Your task to perform on an android device: move an email to a new category in the gmail app Image 0: 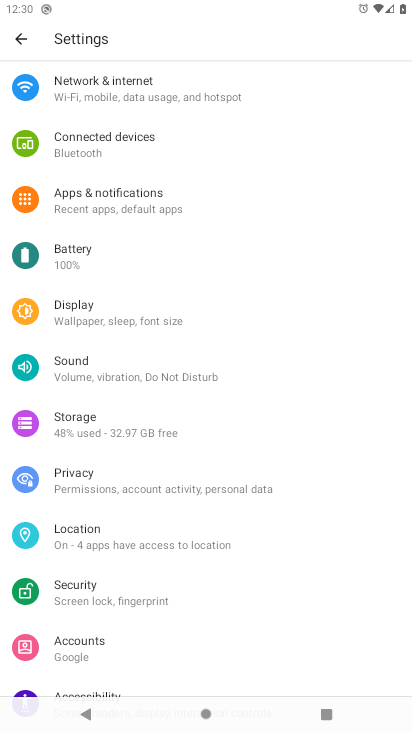
Step 0: press home button
Your task to perform on an android device: move an email to a new category in the gmail app Image 1: 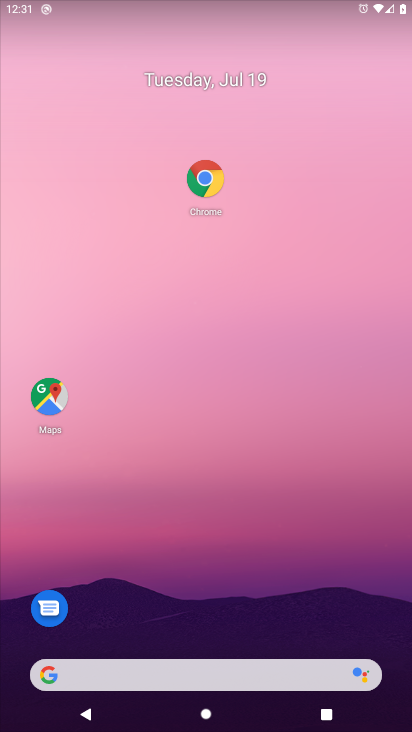
Step 1: click (317, 1)
Your task to perform on an android device: move an email to a new category in the gmail app Image 2: 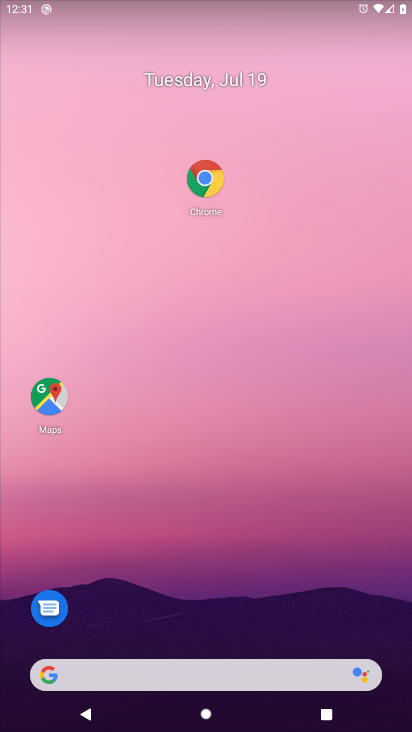
Step 2: drag from (28, 709) to (228, 163)
Your task to perform on an android device: move an email to a new category in the gmail app Image 3: 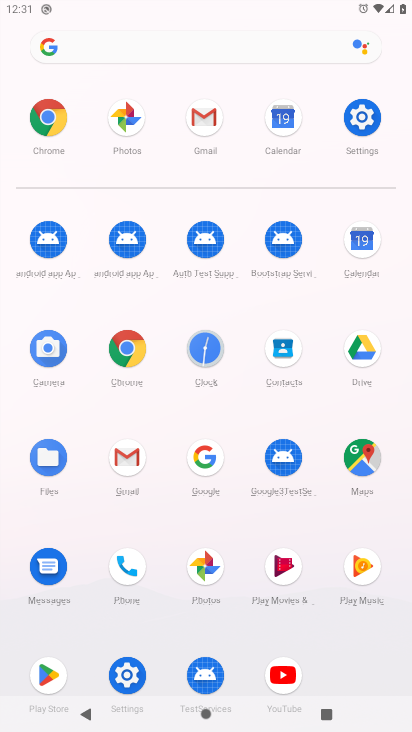
Step 3: click (118, 461)
Your task to perform on an android device: move an email to a new category in the gmail app Image 4: 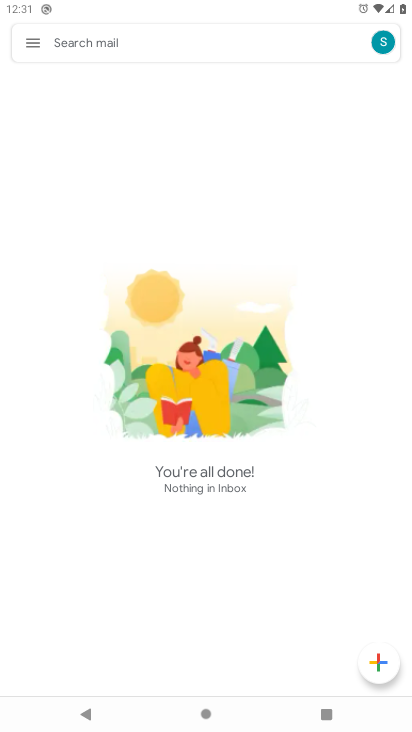
Step 4: click (28, 39)
Your task to perform on an android device: move an email to a new category in the gmail app Image 5: 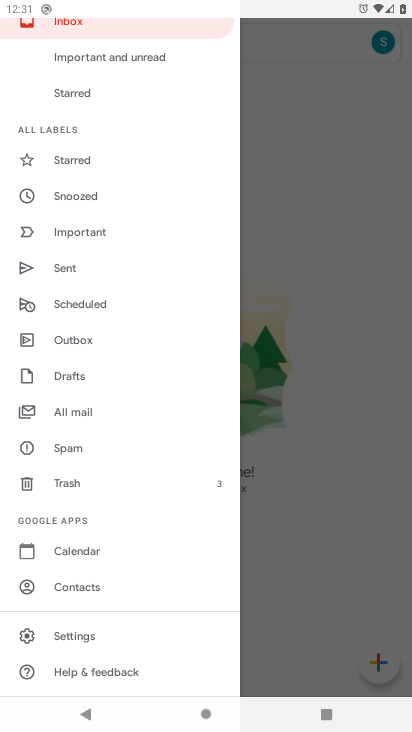
Step 5: click (83, 26)
Your task to perform on an android device: move an email to a new category in the gmail app Image 6: 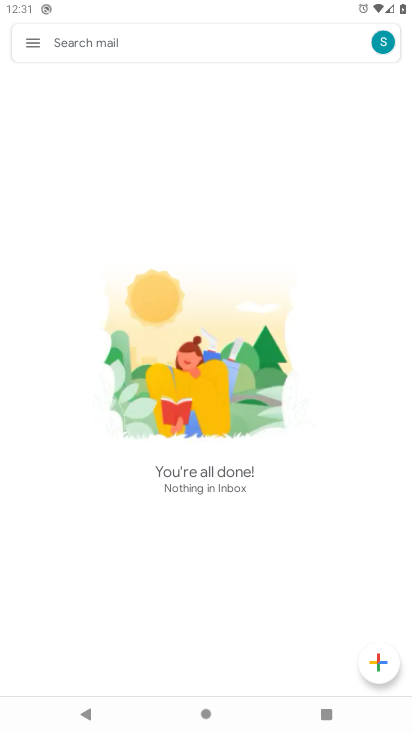
Step 6: task complete